Your task to perform on an android device: Set the phone to "Do not disturb". Image 0: 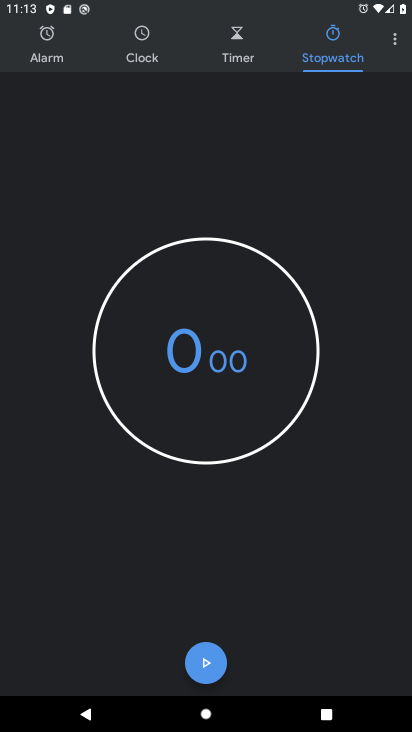
Step 0: press home button
Your task to perform on an android device: Set the phone to "Do not disturb". Image 1: 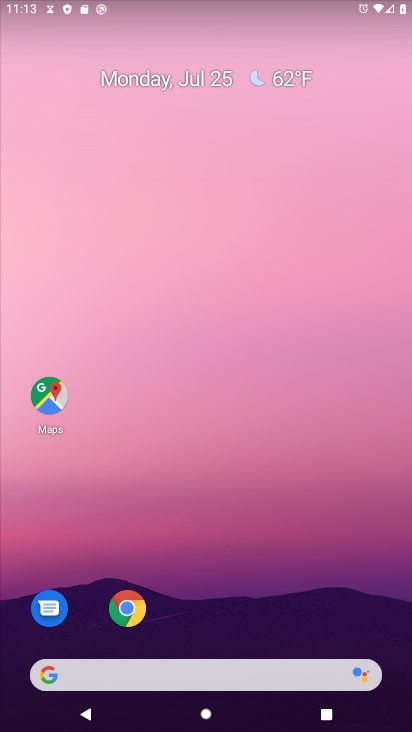
Step 1: drag from (181, 672) to (223, 44)
Your task to perform on an android device: Set the phone to "Do not disturb". Image 2: 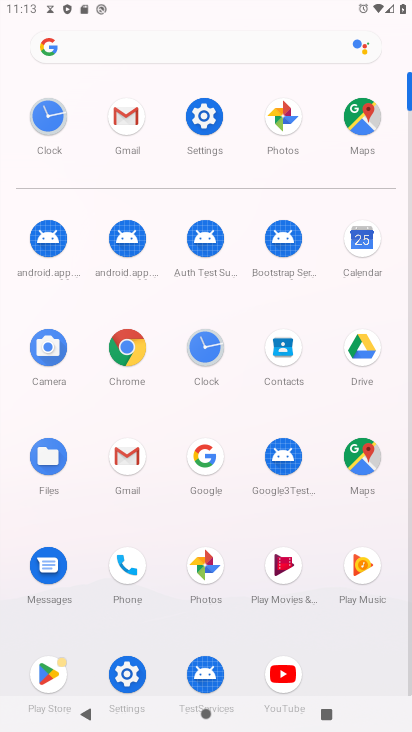
Step 2: click (204, 114)
Your task to perform on an android device: Set the phone to "Do not disturb". Image 3: 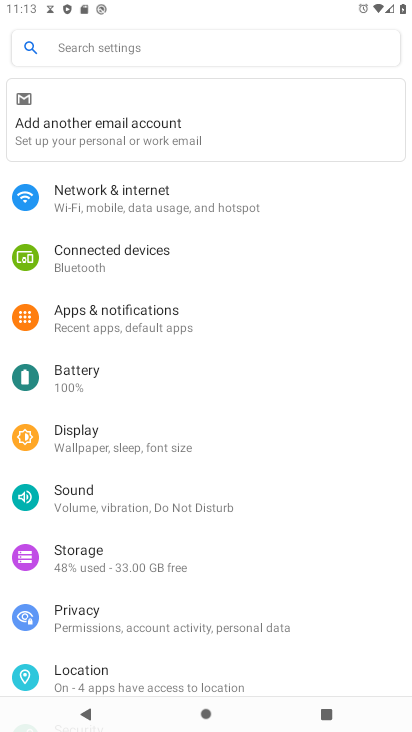
Step 3: click (92, 509)
Your task to perform on an android device: Set the phone to "Do not disturb". Image 4: 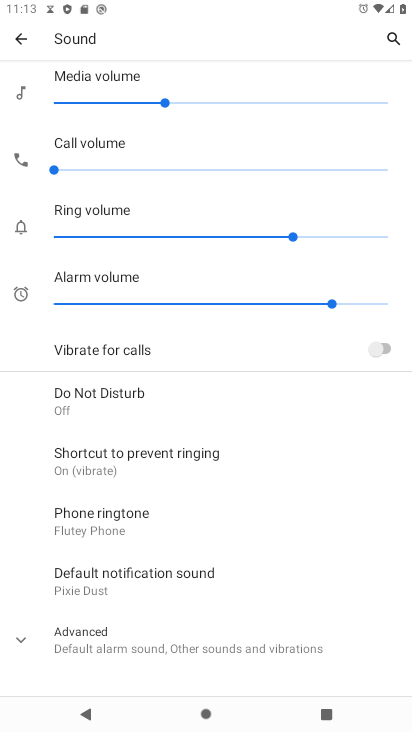
Step 4: click (108, 400)
Your task to perform on an android device: Set the phone to "Do not disturb". Image 5: 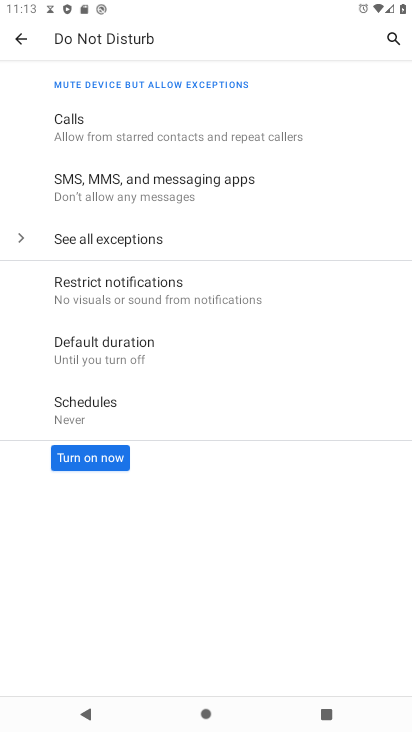
Step 5: click (86, 461)
Your task to perform on an android device: Set the phone to "Do not disturb". Image 6: 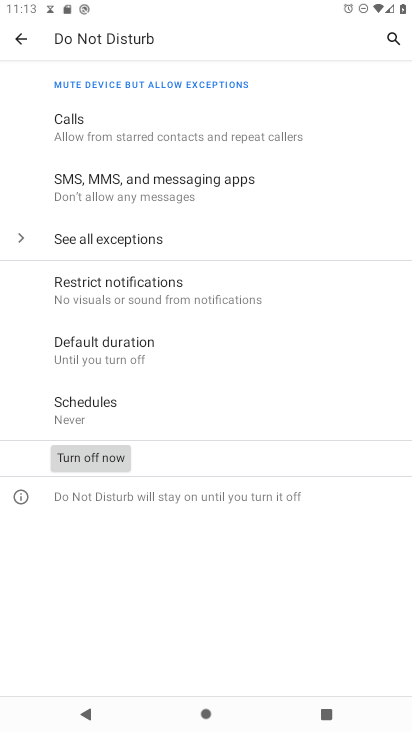
Step 6: task complete